Your task to perform on an android device: Open calendar and show me the third week of next month Image 0: 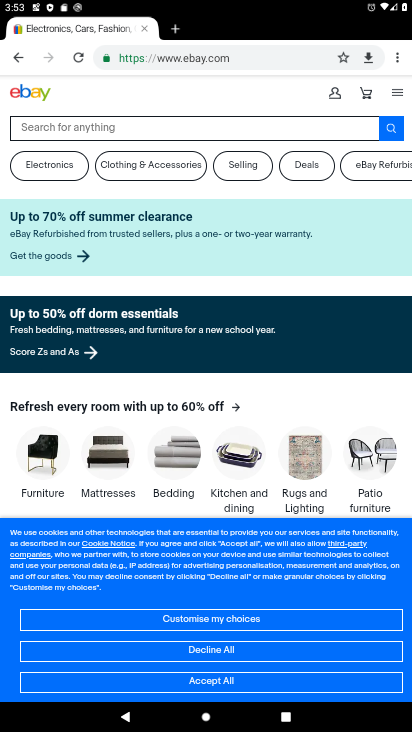
Step 0: press home button
Your task to perform on an android device: Open calendar and show me the third week of next month Image 1: 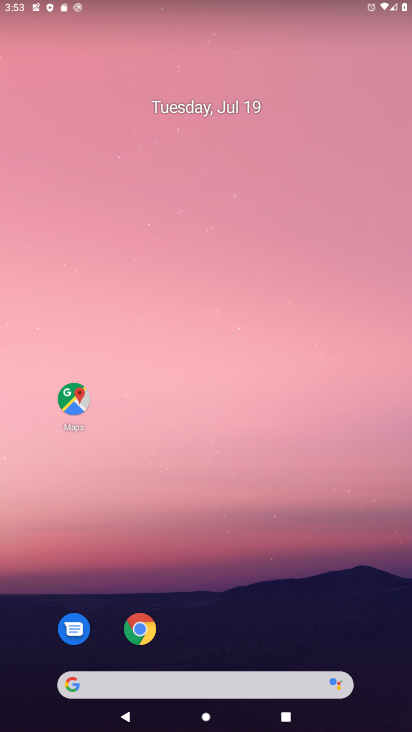
Step 1: drag from (180, 671) to (176, 373)
Your task to perform on an android device: Open calendar and show me the third week of next month Image 2: 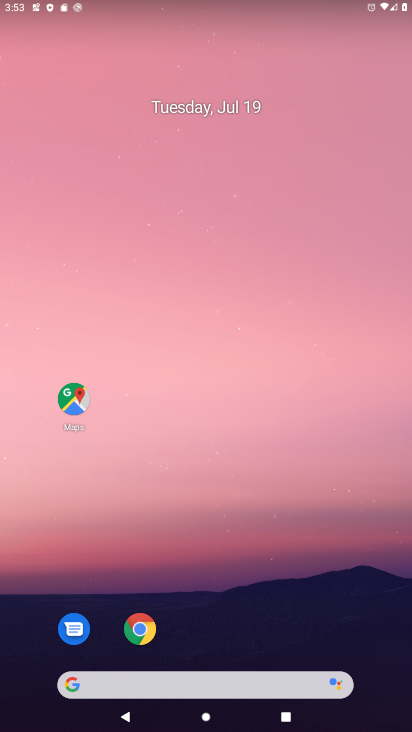
Step 2: drag from (252, 612) to (233, 146)
Your task to perform on an android device: Open calendar and show me the third week of next month Image 3: 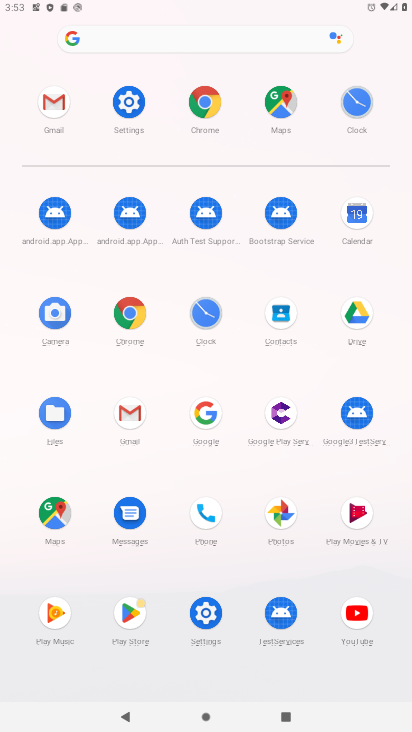
Step 3: click (353, 212)
Your task to perform on an android device: Open calendar and show me the third week of next month Image 4: 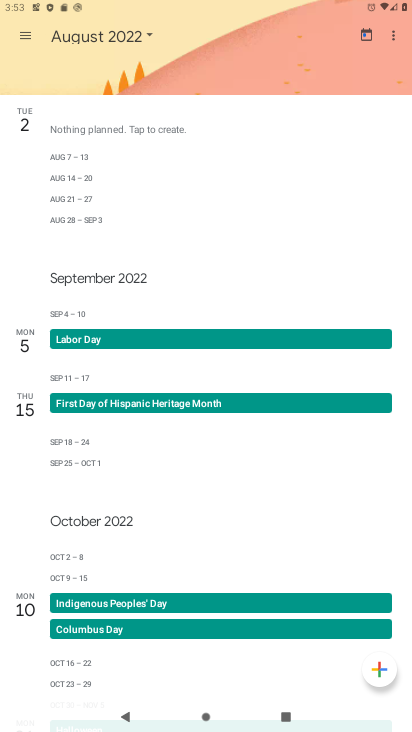
Step 4: click (112, 35)
Your task to perform on an android device: Open calendar and show me the third week of next month Image 5: 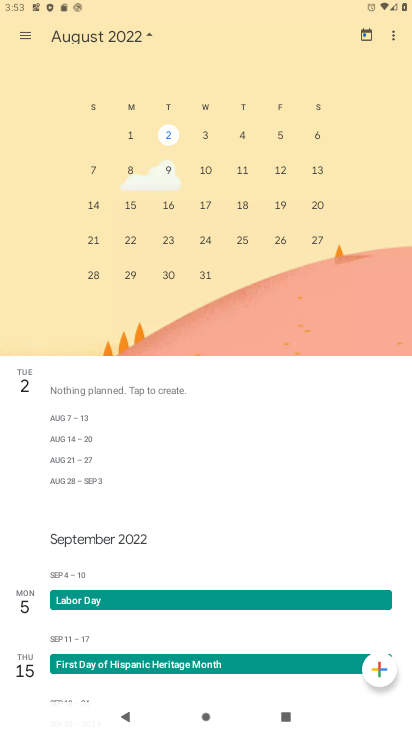
Step 5: click (94, 206)
Your task to perform on an android device: Open calendar and show me the third week of next month Image 6: 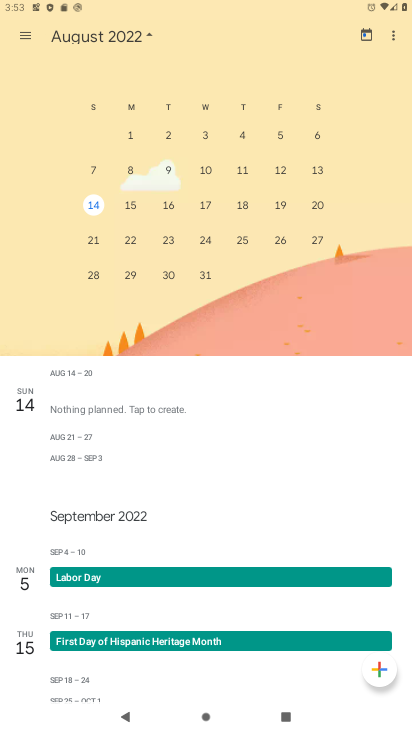
Step 6: task complete